Your task to perform on an android device: turn off priority inbox in the gmail app Image 0: 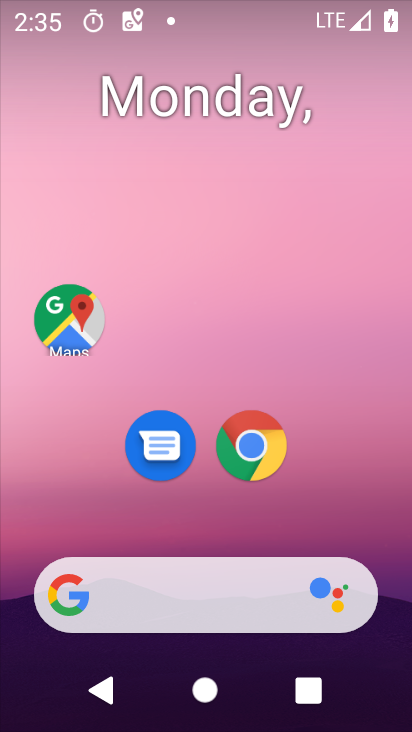
Step 0: drag from (236, 552) to (235, 109)
Your task to perform on an android device: turn off priority inbox in the gmail app Image 1: 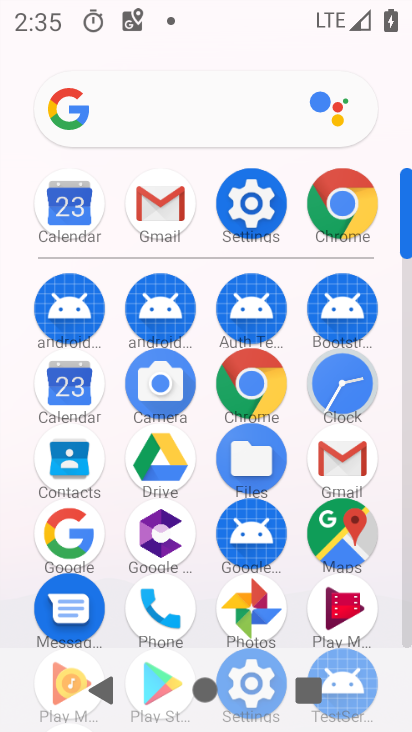
Step 1: click (355, 453)
Your task to perform on an android device: turn off priority inbox in the gmail app Image 2: 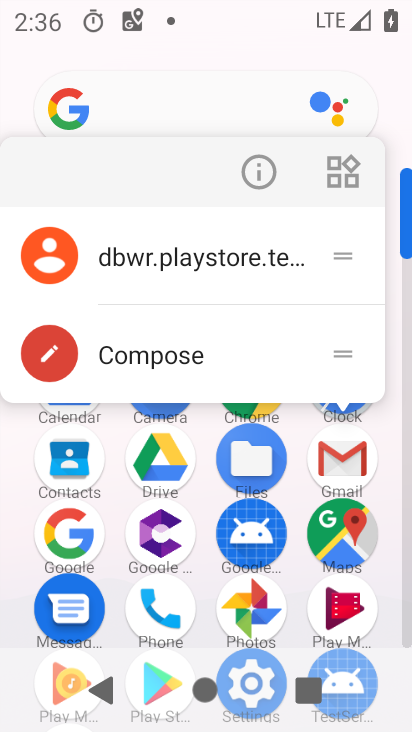
Step 2: click (341, 476)
Your task to perform on an android device: turn off priority inbox in the gmail app Image 3: 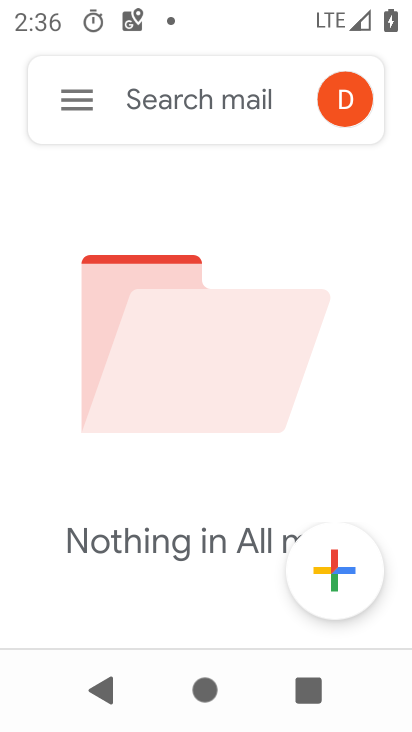
Step 3: click (83, 95)
Your task to perform on an android device: turn off priority inbox in the gmail app Image 4: 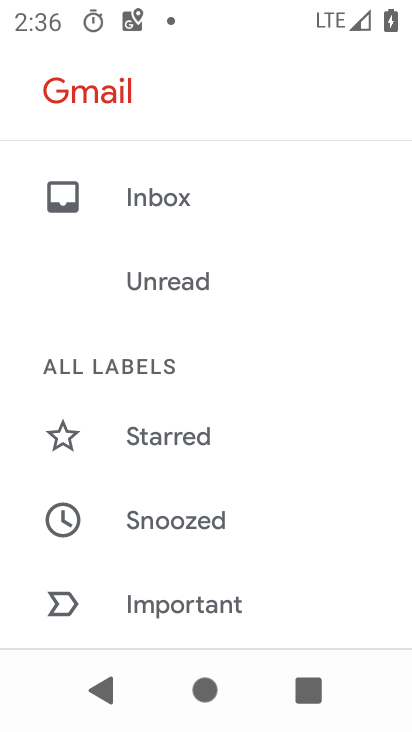
Step 4: drag from (164, 573) to (139, 8)
Your task to perform on an android device: turn off priority inbox in the gmail app Image 5: 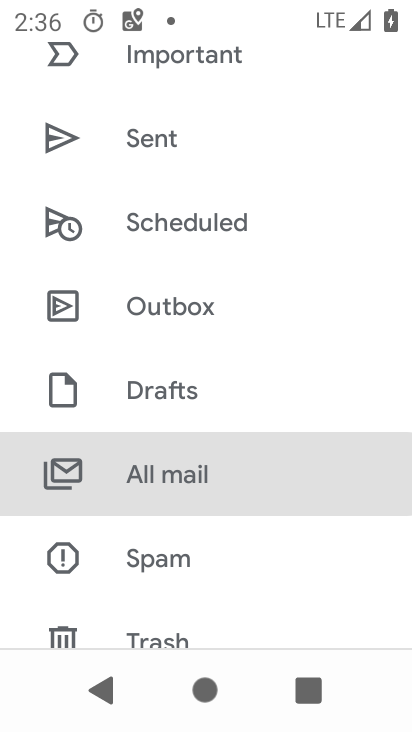
Step 5: drag from (185, 608) to (211, 124)
Your task to perform on an android device: turn off priority inbox in the gmail app Image 6: 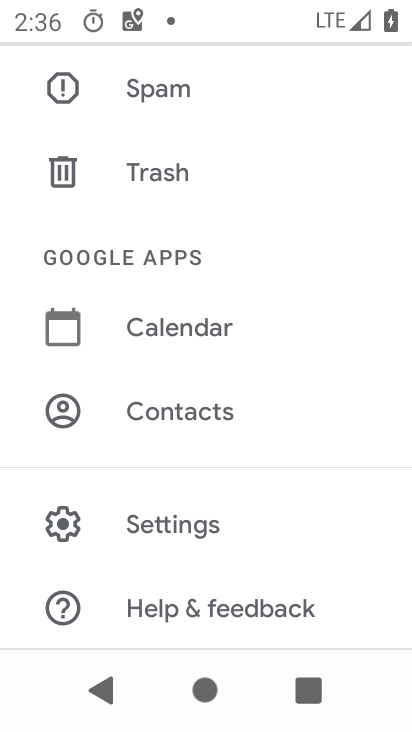
Step 6: click (163, 514)
Your task to perform on an android device: turn off priority inbox in the gmail app Image 7: 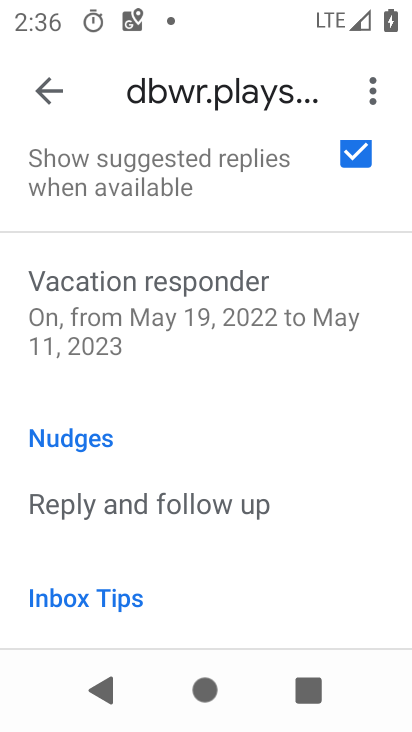
Step 7: drag from (134, 216) to (176, 678)
Your task to perform on an android device: turn off priority inbox in the gmail app Image 8: 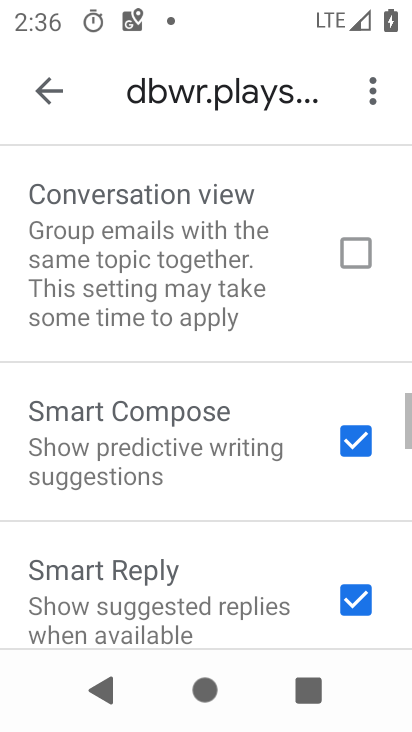
Step 8: drag from (143, 174) to (187, 698)
Your task to perform on an android device: turn off priority inbox in the gmail app Image 9: 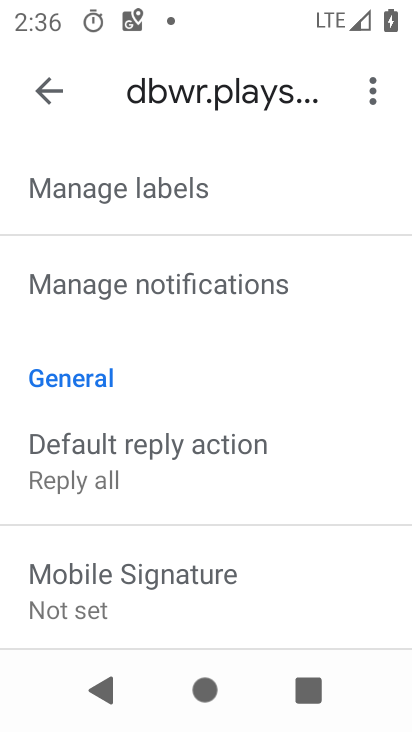
Step 9: drag from (208, 435) to (198, 709)
Your task to perform on an android device: turn off priority inbox in the gmail app Image 10: 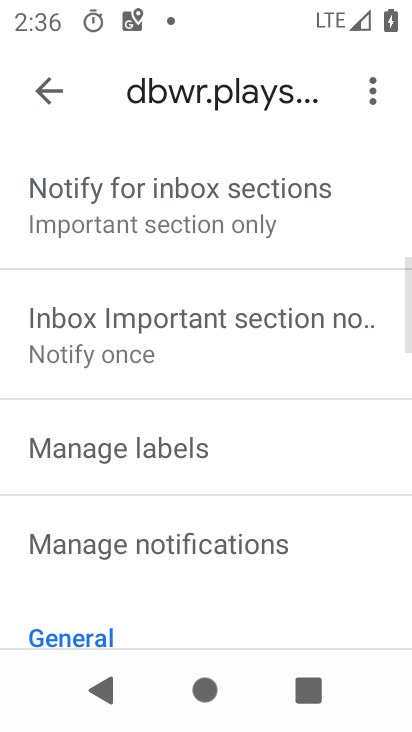
Step 10: drag from (131, 373) to (148, 723)
Your task to perform on an android device: turn off priority inbox in the gmail app Image 11: 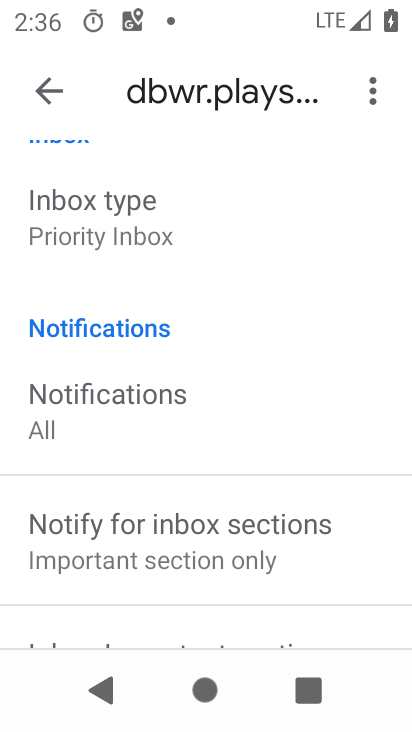
Step 11: click (120, 201)
Your task to perform on an android device: turn off priority inbox in the gmail app Image 12: 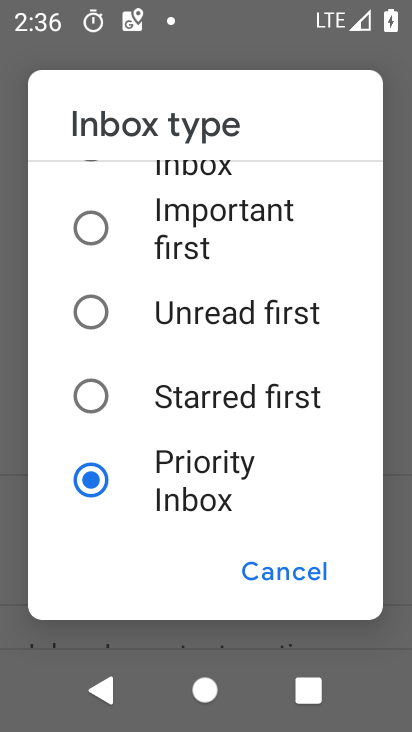
Step 12: drag from (129, 247) to (127, 516)
Your task to perform on an android device: turn off priority inbox in the gmail app Image 13: 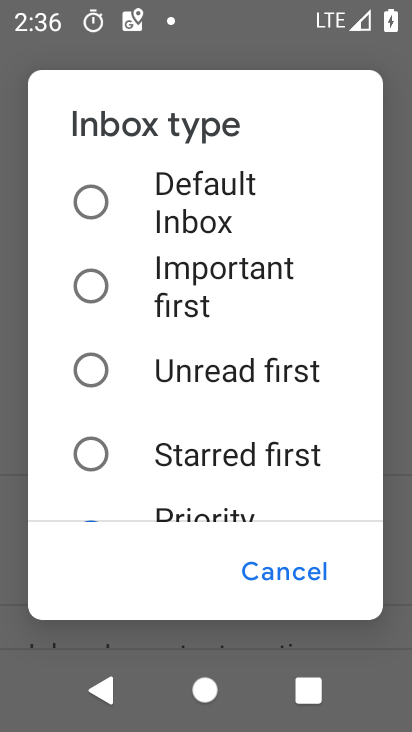
Step 13: click (99, 202)
Your task to perform on an android device: turn off priority inbox in the gmail app Image 14: 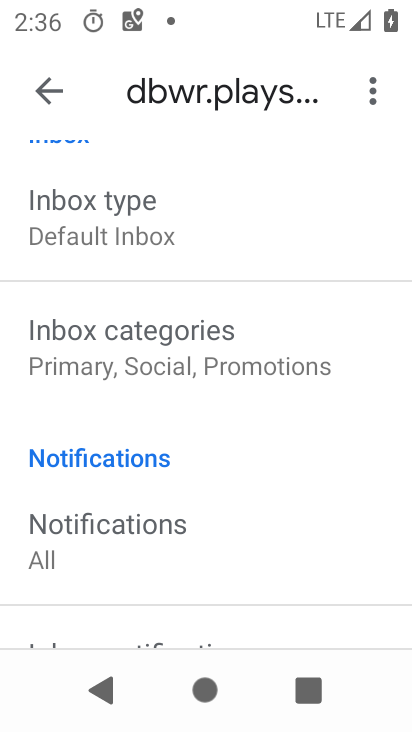
Step 14: task complete